Your task to perform on an android device: uninstall "Microsoft Outlook" Image 0: 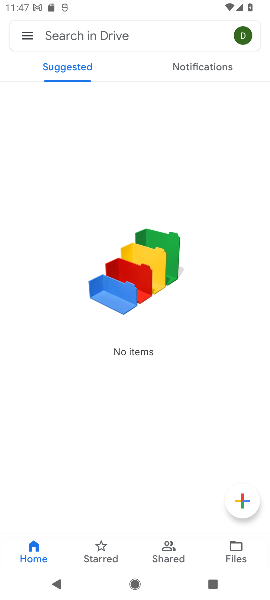
Step 0: press home button
Your task to perform on an android device: uninstall "Microsoft Outlook" Image 1: 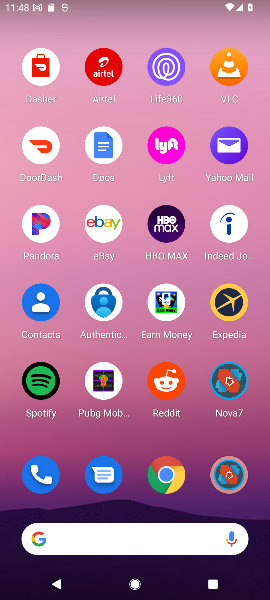
Step 1: drag from (129, 491) to (143, 43)
Your task to perform on an android device: uninstall "Microsoft Outlook" Image 2: 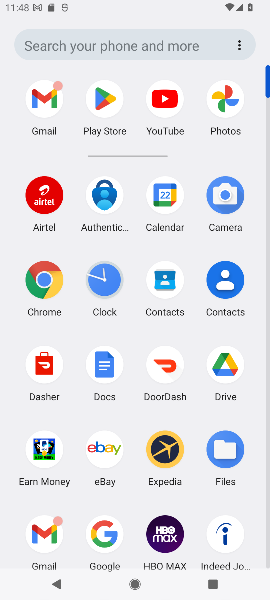
Step 2: click (104, 96)
Your task to perform on an android device: uninstall "Microsoft Outlook" Image 3: 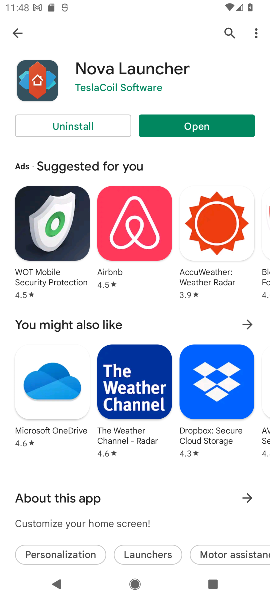
Step 3: click (15, 34)
Your task to perform on an android device: uninstall "Microsoft Outlook" Image 4: 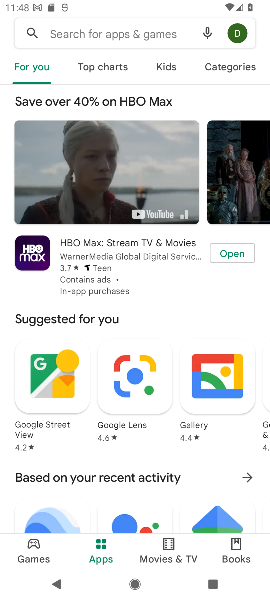
Step 4: click (97, 37)
Your task to perform on an android device: uninstall "Microsoft Outlook" Image 5: 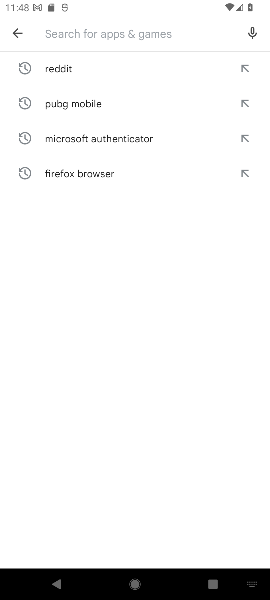
Step 5: type "Microsoft Outlook"
Your task to perform on an android device: uninstall "Microsoft Outlook" Image 6: 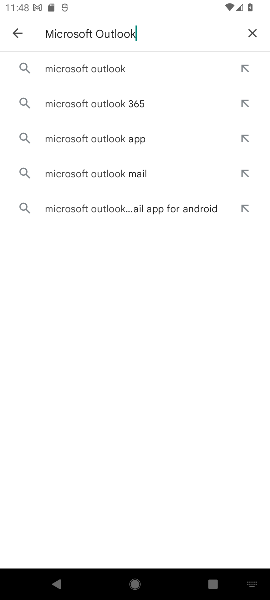
Step 6: click (104, 67)
Your task to perform on an android device: uninstall "Microsoft Outlook" Image 7: 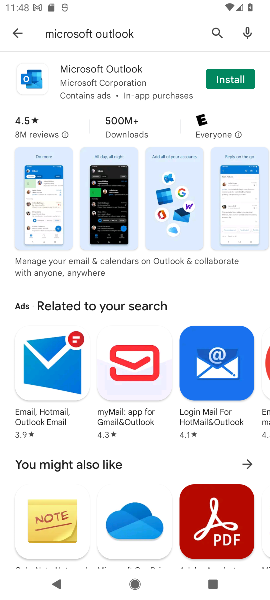
Step 7: task complete